Your task to perform on an android device: Open Google Image 0: 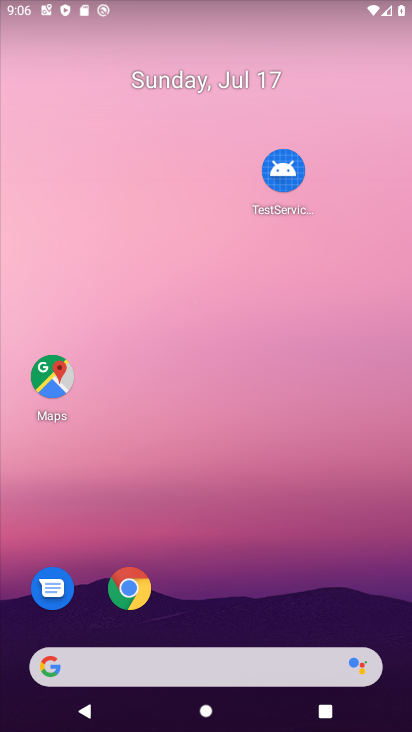
Step 0: drag from (256, 664) to (370, 73)
Your task to perform on an android device: Open Google Image 1: 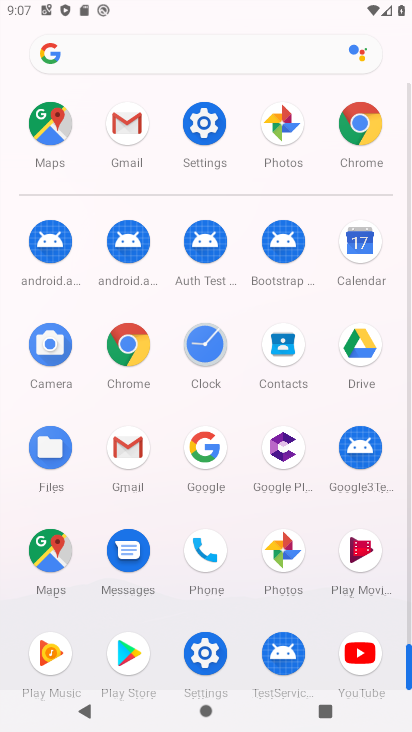
Step 1: click (219, 466)
Your task to perform on an android device: Open Google Image 2: 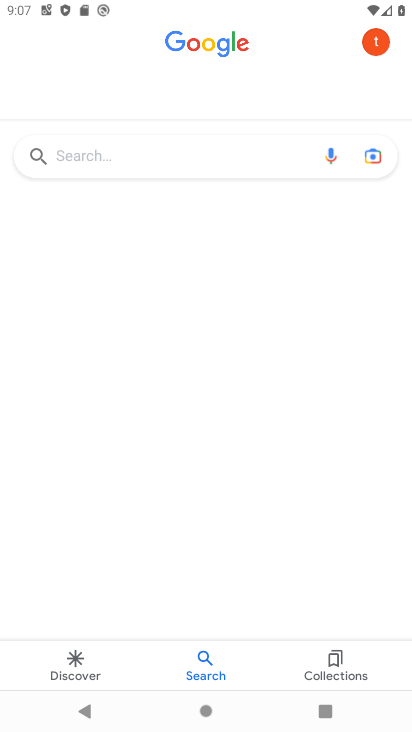
Step 2: task complete